Your task to perform on an android device: Show me recent news Image 0: 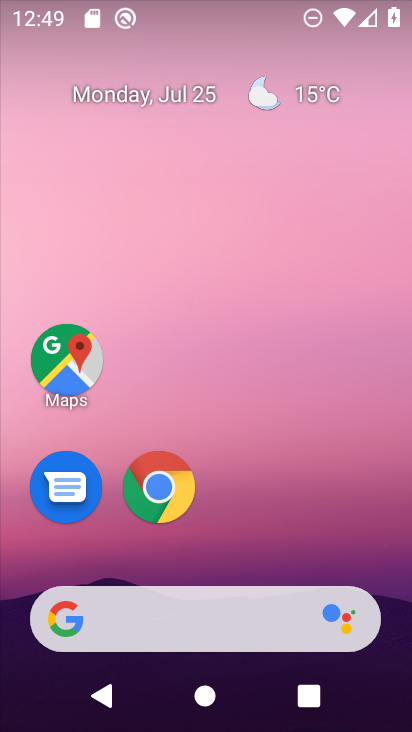
Step 0: click (172, 618)
Your task to perform on an android device: Show me recent news Image 1: 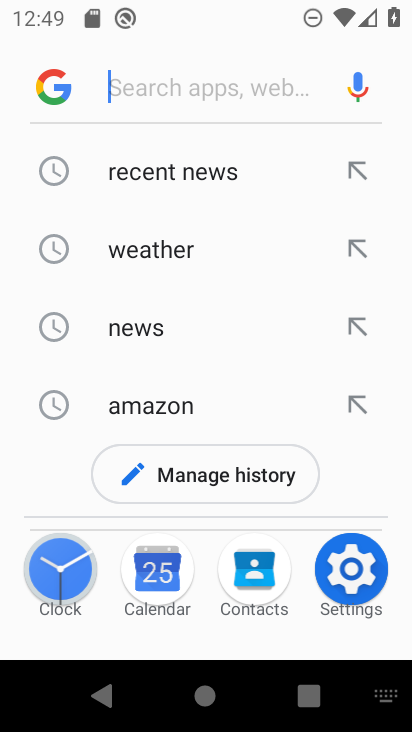
Step 1: click (178, 182)
Your task to perform on an android device: Show me recent news Image 2: 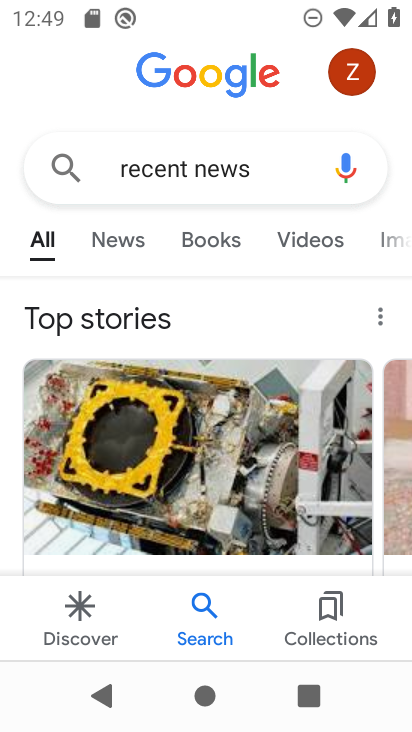
Step 2: task complete